Your task to perform on an android device: open chrome privacy settings Image 0: 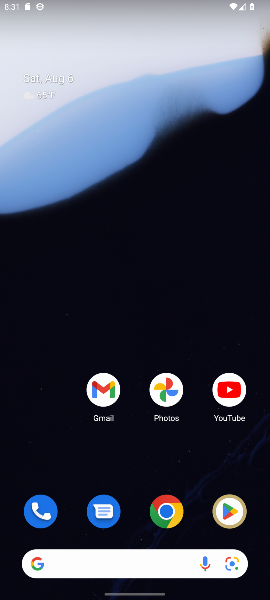
Step 0: press home button
Your task to perform on an android device: open chrome privacy settings Image 1: 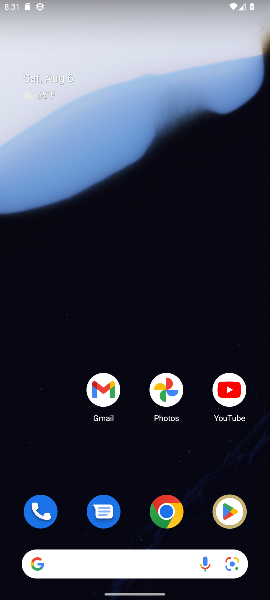
Step 1: drag from (88, 578) to (109, 51)
Your task to perform on an android device: open chrome privacy settings Image 2: 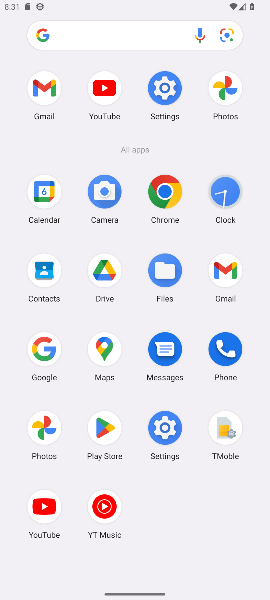
Step 2: click (166, 202)
Your task to perform on an android device: open chrome privacy settings Image 3: 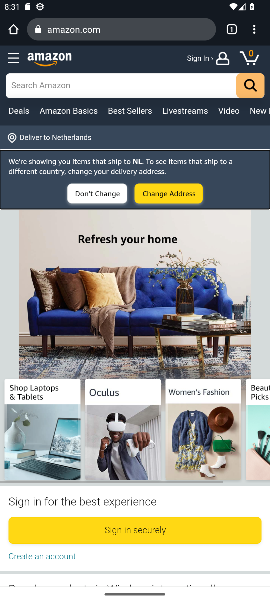
Step 3: drag from (254, 31) to (172, 365)
Your task to perform on an android device: open chrome privacy settings Image 4: 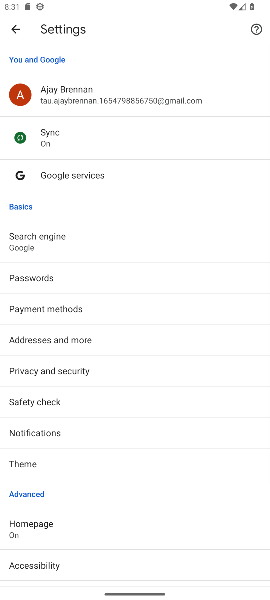
Step 4: click (52, 366)
Your task to perform on an android device: open chrome privacy settings Image 5: 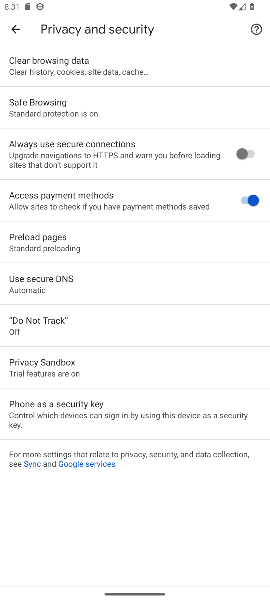
Step 5: task complete